Your task to perform on an android device: What's on my calendar today? Image 0: 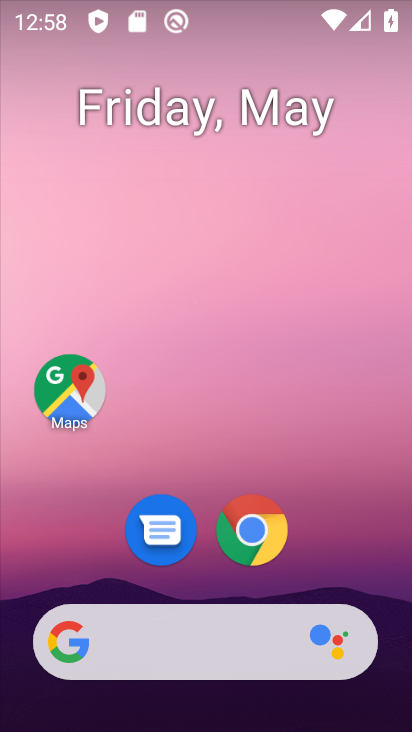
Step 0: drag from (193, 519) to (194, 0)
Your task to perform on an android device: What's on my calendar today? Image 1: 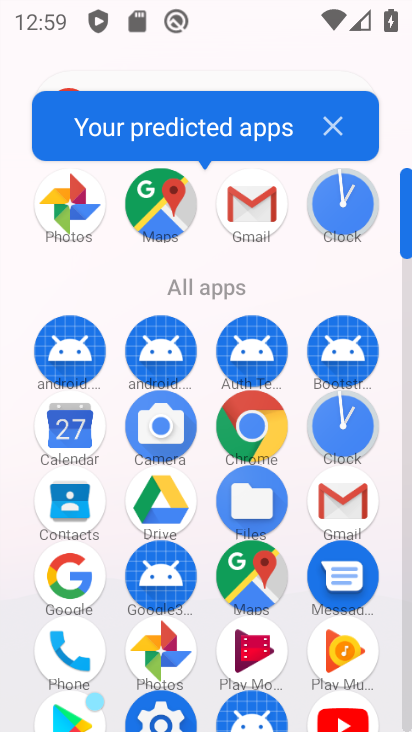
Step 1: click (84, 416)
Your task to perform on an android device: What's on my calendar today? Image 2: 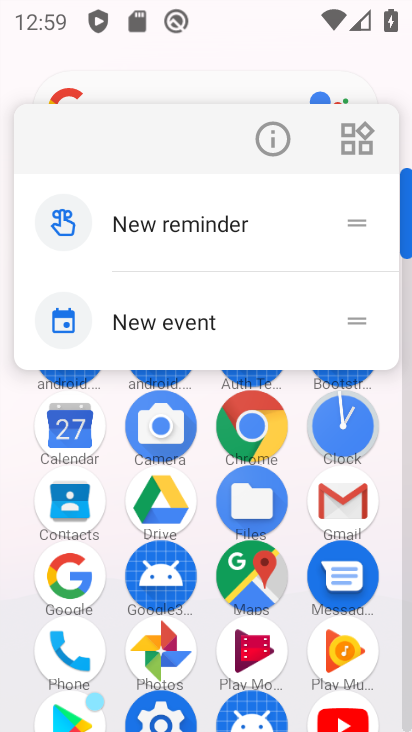
Step 2: click (79, 431)
Your task to perform on an android device: What's on my calendar today? Image 3: 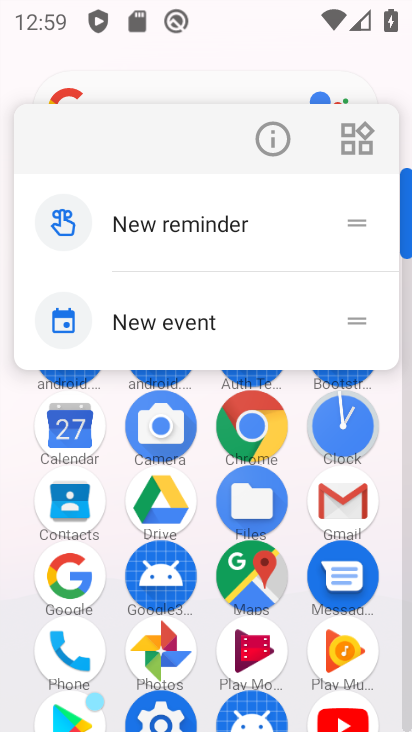
Step 3: click (79, 431)
Your task to perform on an android device: What's on my calendar today? Image 4: 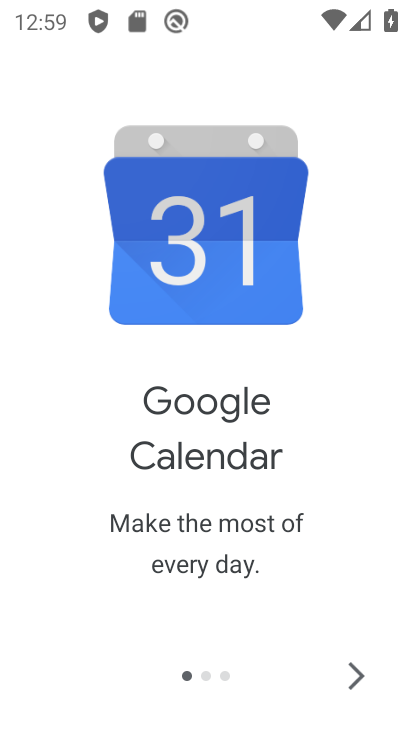
Step 4: click (345, 667)
Your task to perform on an android device: What's on my calendar today? Image 5: 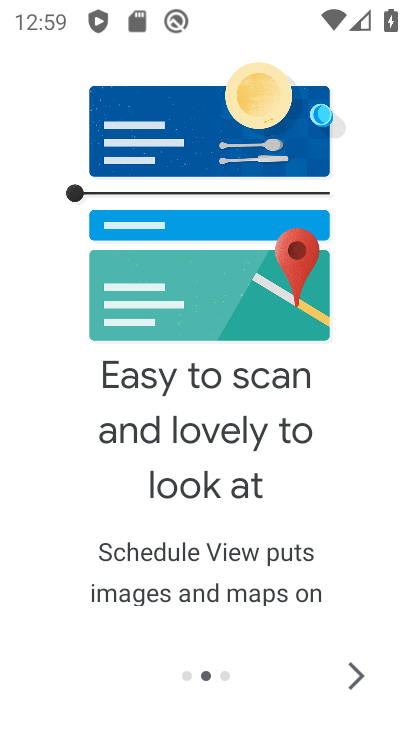
Step 5: click (345, 666)
Your task to perform on an android device: What's on my calendar today? Image 6: 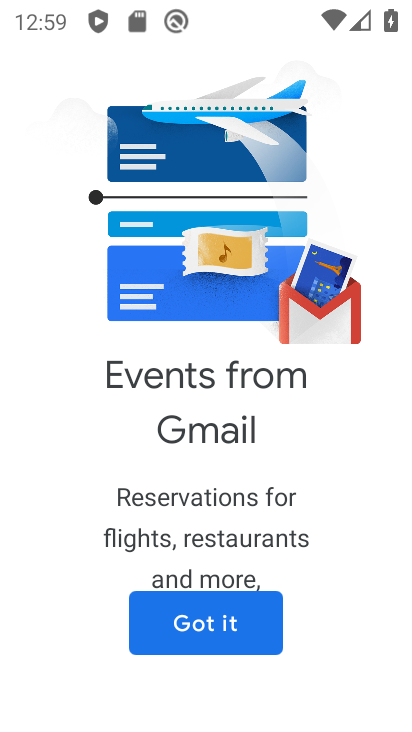
Step 6: click (250, 639)
Your task to perform on an android device: What's on my calendar today? Image 7: 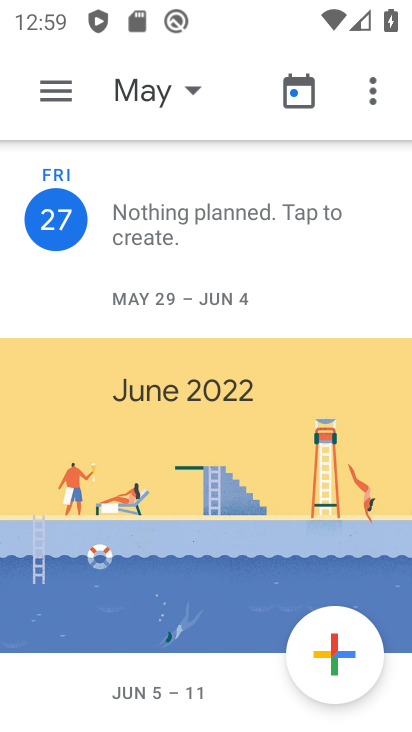
Step 7: click (132, 97)
Your task to perform on an android device: What's on my calendar today? Image 8: 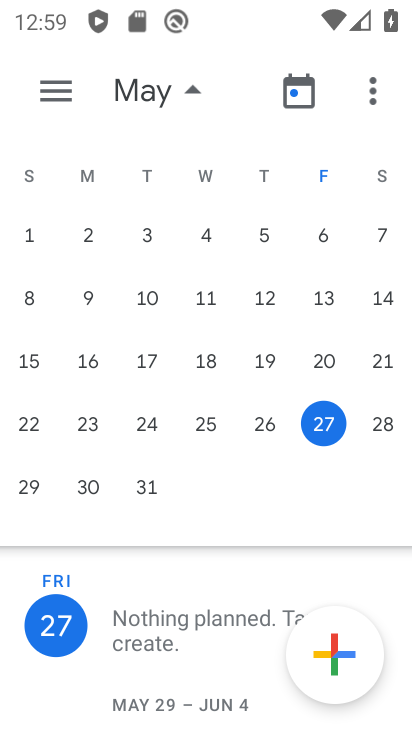
Step 8: click (313, 424)
Your task to perform on an android device: What's on my calendar today? Image 9: 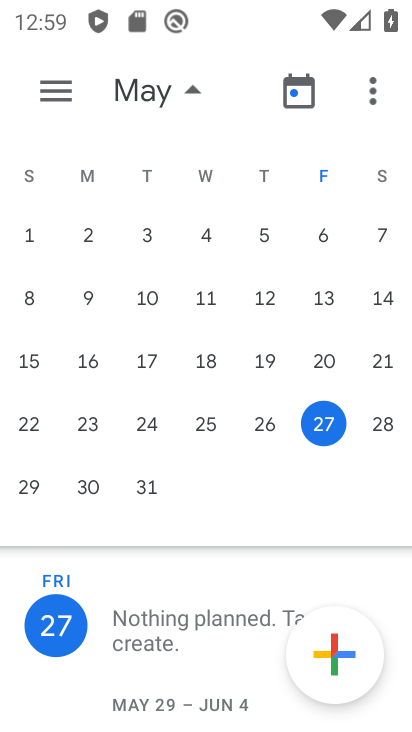
Step 9: task complete